Your task to perform on an android device: Go to Maps Image 0: 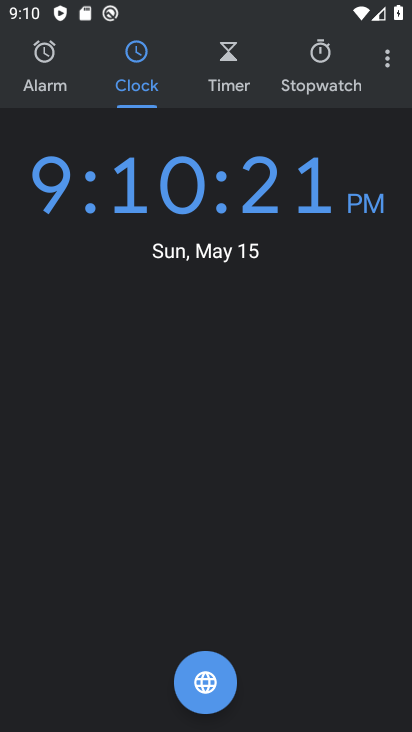
Step 0: press home button
Your task to perform on an android device: Go to Maps Image 1: 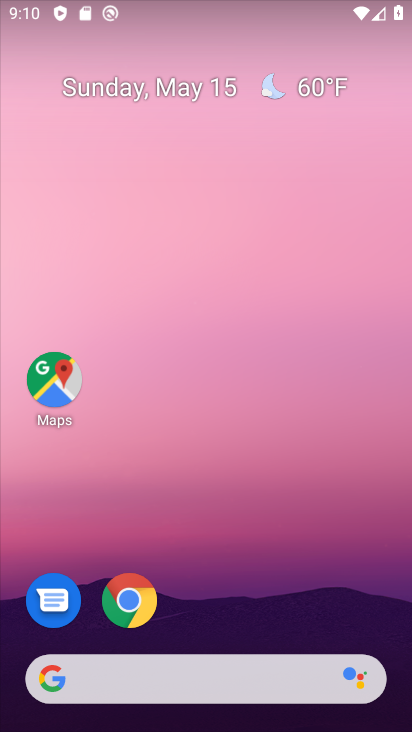
Step 1: click (46, 400)
Your task to perform on an android device: Go to Maps Image 2: 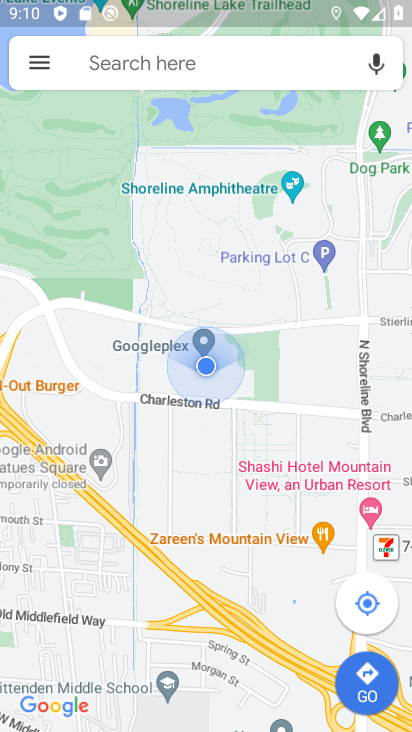
Step 2: task complete